Your task to perform on an android device: Go to accessibility settings Image 0: 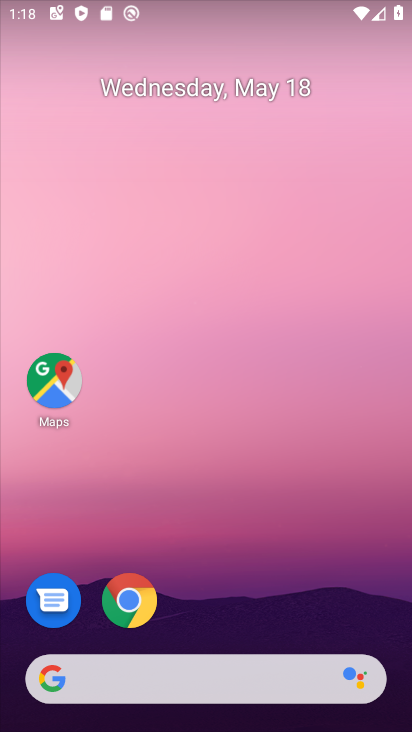
Step 0: drag from (243, 602) to (189, 144)
Your task to perform on an android device: Go to accessibility settings Image 1: 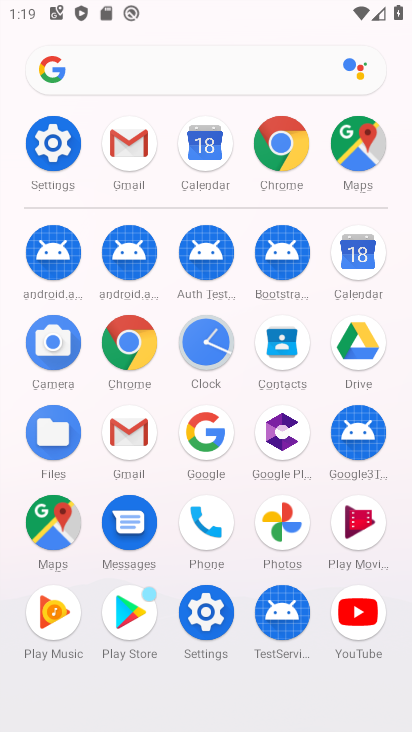
Step 1: click (211, 615)
Your task to perform on an android device: Go to accessibility settings Image 2: 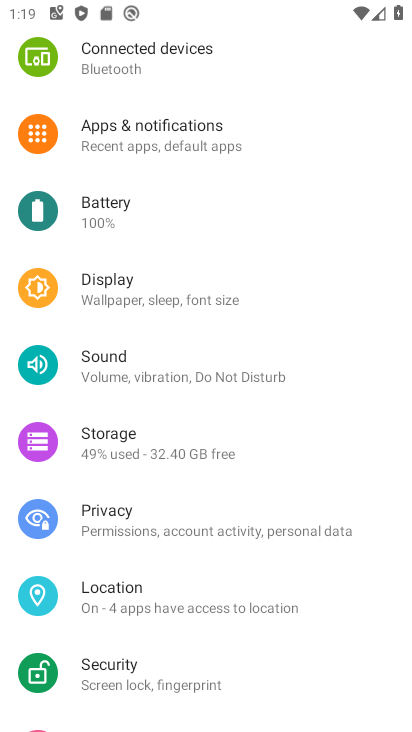
Step 2: drag from (135, 625) to (169, 413)
Your task to perform on an android device: Go to accessibility settings Image 3: 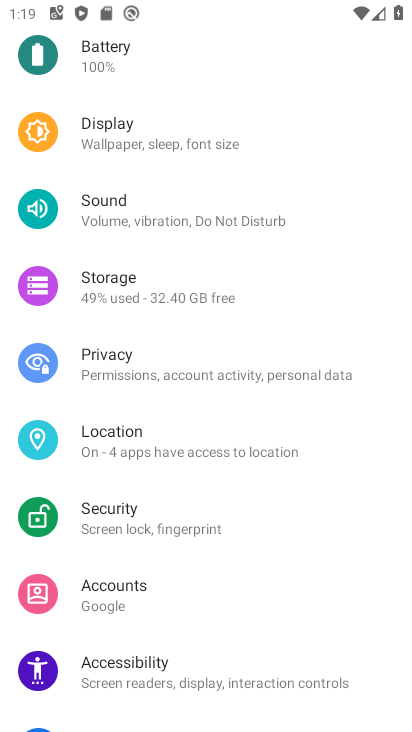
Step 3: drag from (184, 614) to (218, 470)
Your task to perform on an android device: Go to accessibility settings Image 4: 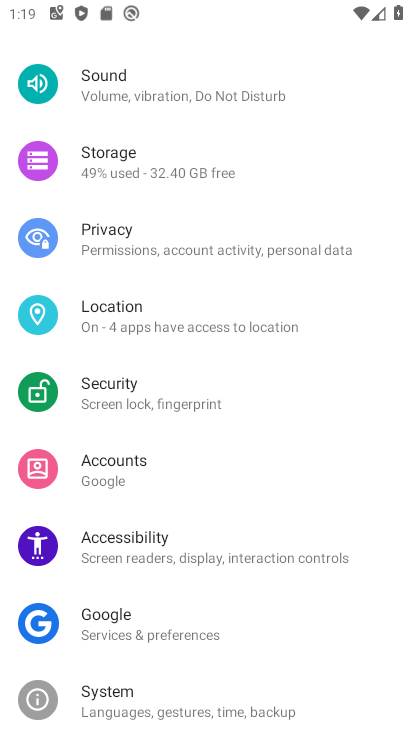
Step 4: click (148, 557)
Your task to perform on an android device: Go to accessibility settings Image 5: 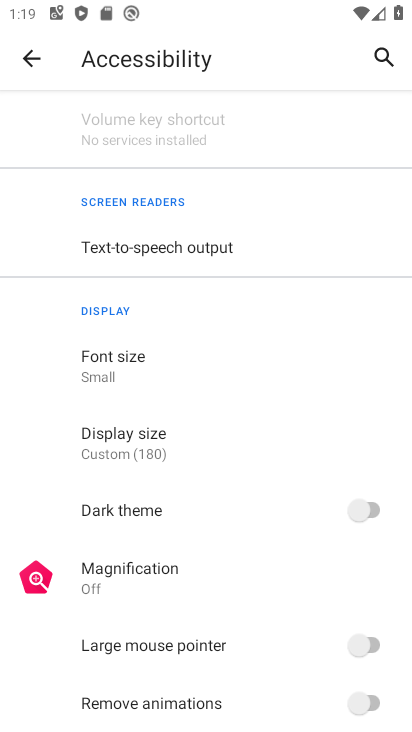
Step 5: task complete